Your task to perform on an android device: open chrome and create a bookmark for the current page Image 0: 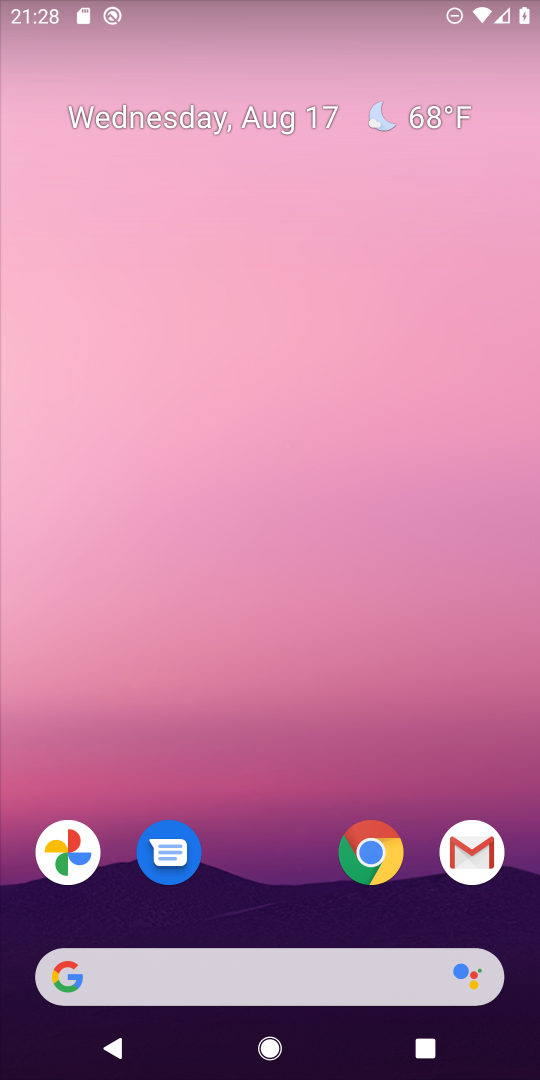
Step 0: click (376, 866)
Your task to perform on an android device: open chrome and create a bookmark for the current page Image 1: 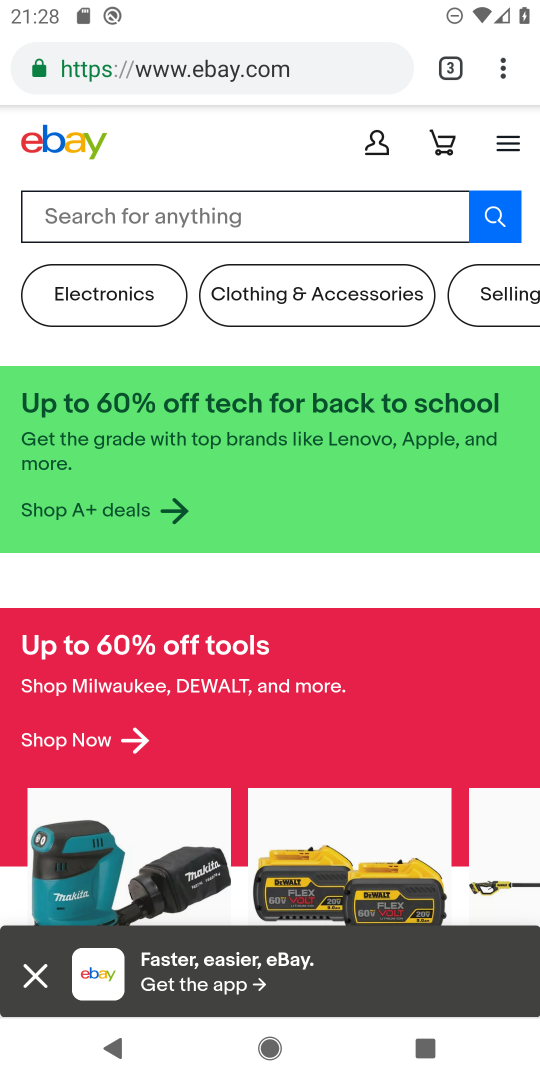
Step 1: click (509, 65)
Your task to perform on an android device: open chrome and create a bookmark for the current page Image 2: 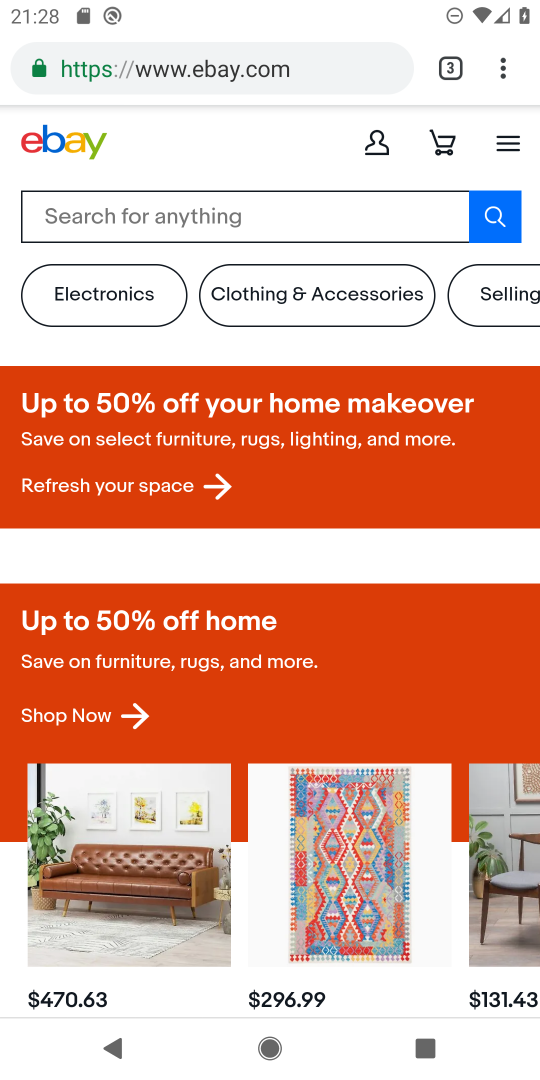
Step 2: click (483, 71)
Your task to perform on an android device: open chrome and create a bookmark for the current page Image 3: 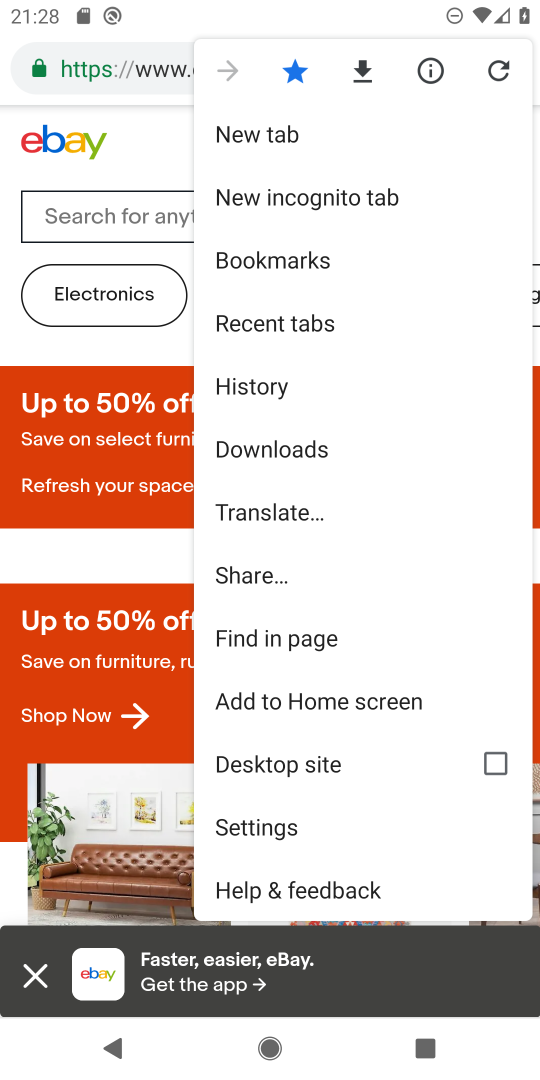
Step 3: task complete